Your task to perform on an android device: Search for sushi restaurants on Maps Image 0: 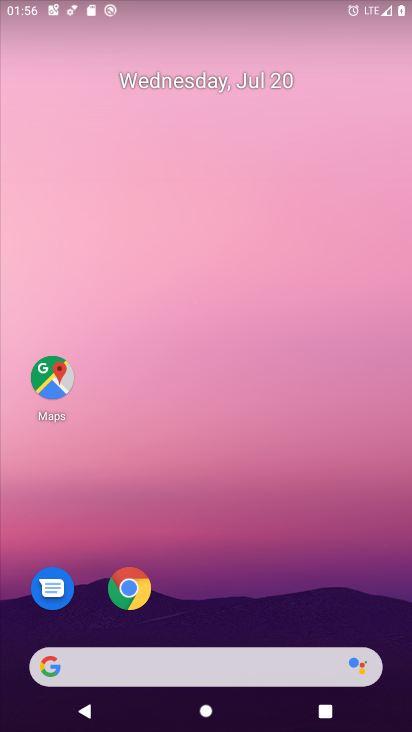
Step 0: drag from (273, 581) to (300, 107)
Your task to perform on an android device: Search for sushi restaurants on Maps Image 1: 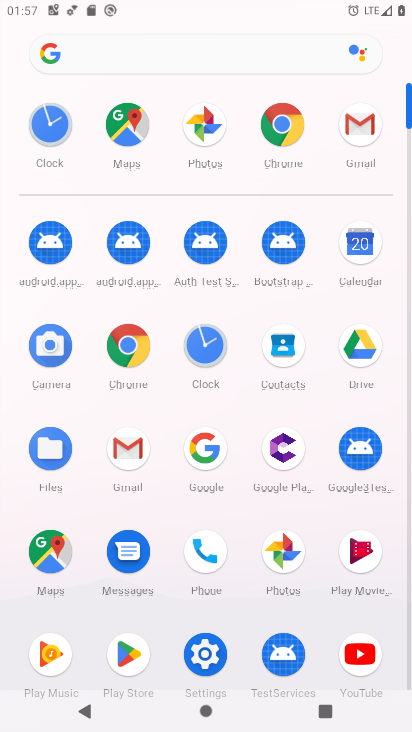
Step 1: click (64, 549)
Your task to perform on an android device: Search for sushi restaurants on Maps Image 2: 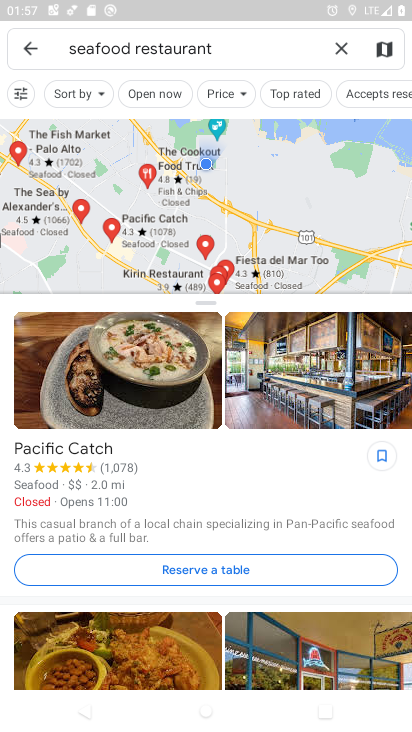
Step 2: click (339, 58)
Your task to perform on an android device: Search for sushi restaurants on Maps Image 3: 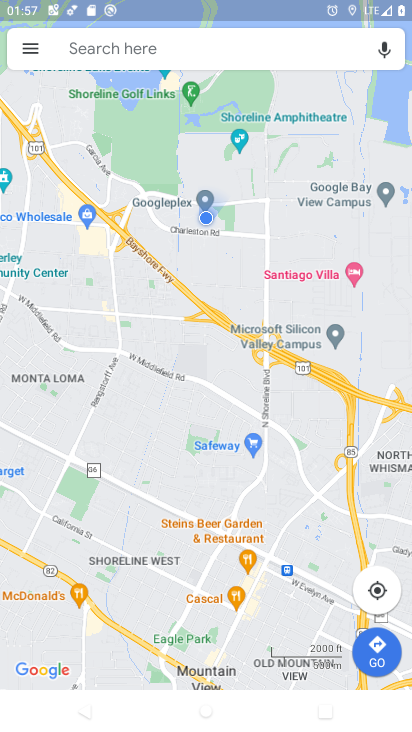
Step 3: click (206, 46)
Your task to perform on an android device: Search for sushi restaurants on Maps Image 4: 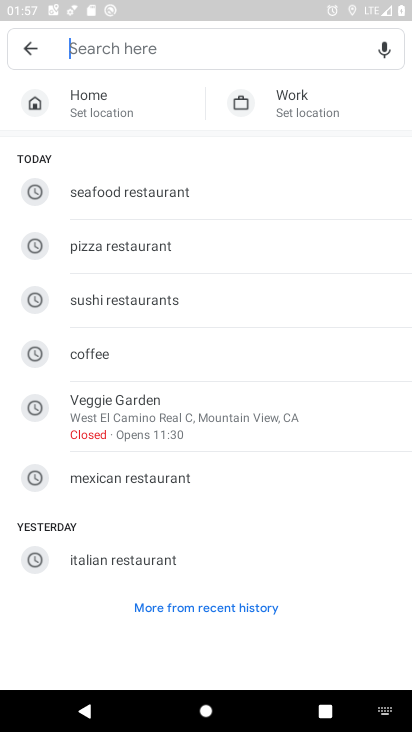
Step 4: click (127, 305)
Your task to perform on an android device: Search for sushi restaurants on Maps Image 5: 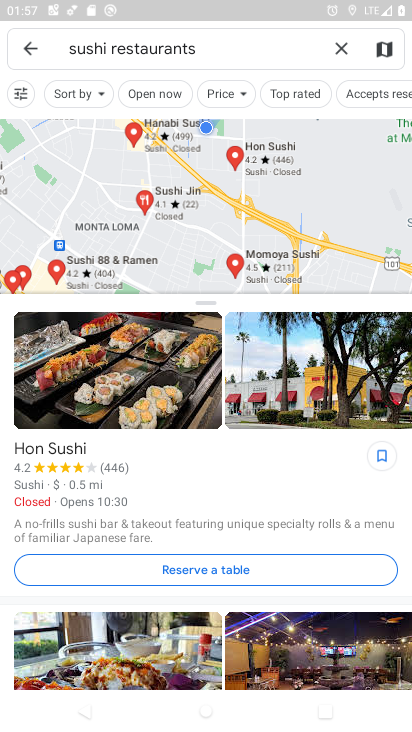
Step 5: task complete